Your task to perform on an android device: turn notification dots on Image 0: 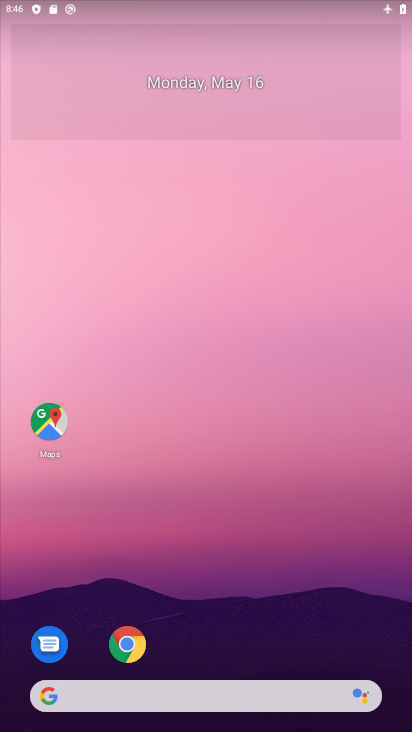
Step 0: drag from (260, 712) to (216, 5)
Your task to perform on an android device: turn notification dots on Image 1: 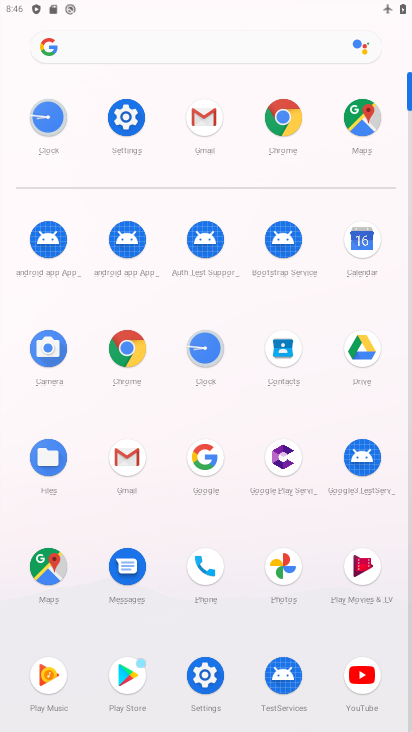
Step 1: click (119, 130)
Your task to perform on an android device: turn notification dots on Image 2: 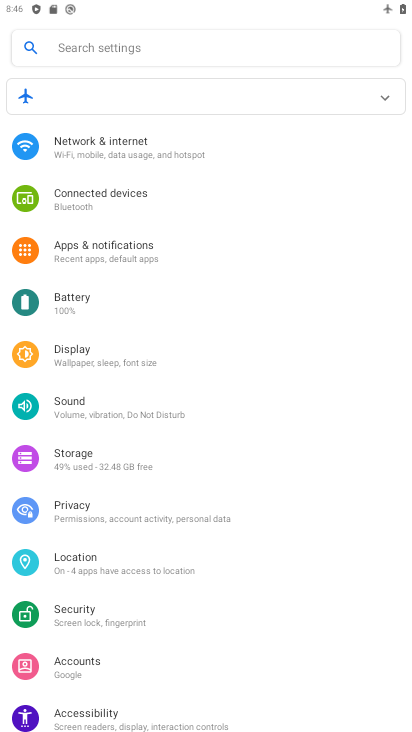
Step 2: click (135, 240)
Your task to perform on an android device: turn notification dots on Image 3: 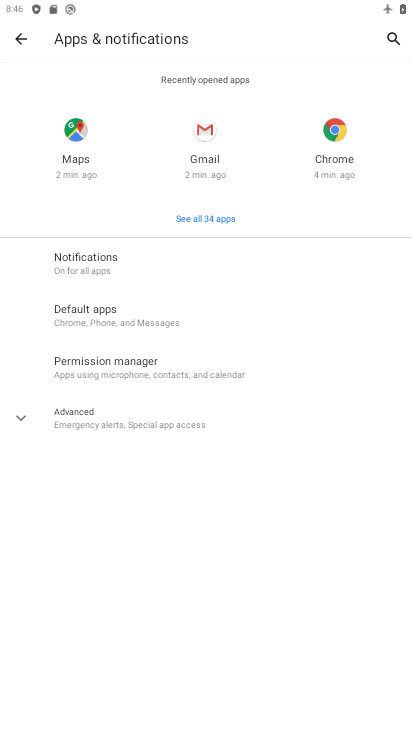
Step 3: click (165, 428)
Your task to perform on an android device: turn notification dots on Image 4: 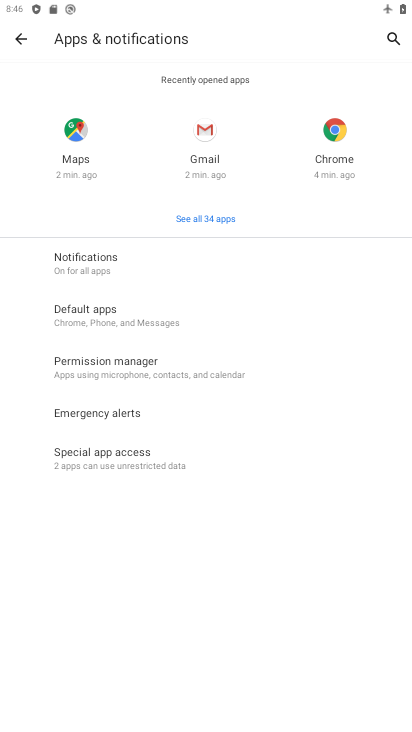
Step 4: click (149, 253)
Your task to perform on an android device: turn notification dots on Image 5: 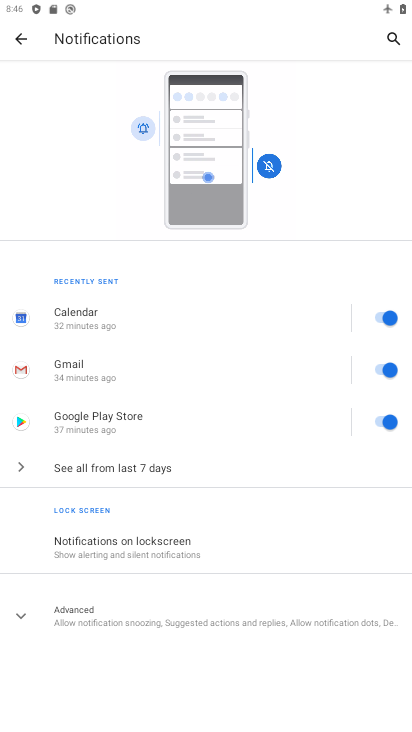
Step 5: click (249, 626)
Your task to perform on an android device: turn notification dots on Image 6: 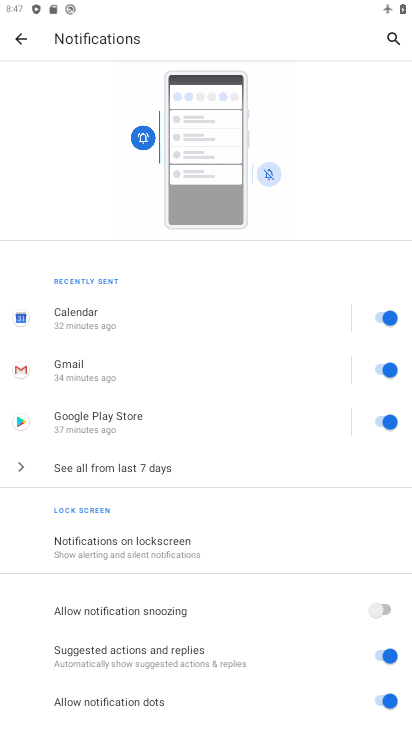
Step 6: task complete